Your task to perform on an android device: Open eBay Image 0: 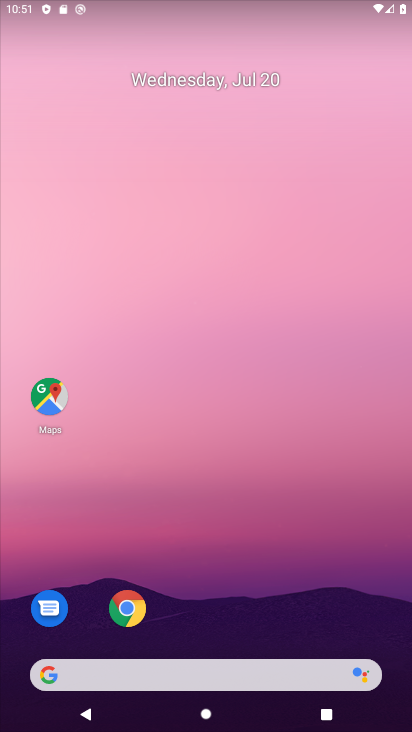
Step 0: drag from (375, 624) to (245, 78)
Your task to perform on an android device: Open eBay Image 1: 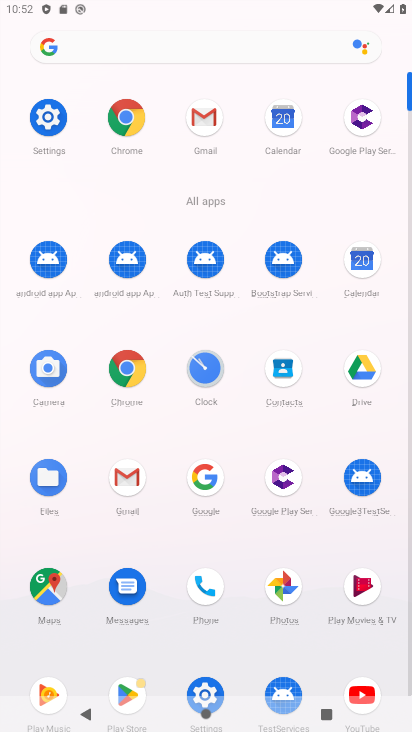
Step 1: click (201, 489)
Your task to perform on an android device: Open eBay Image 2: 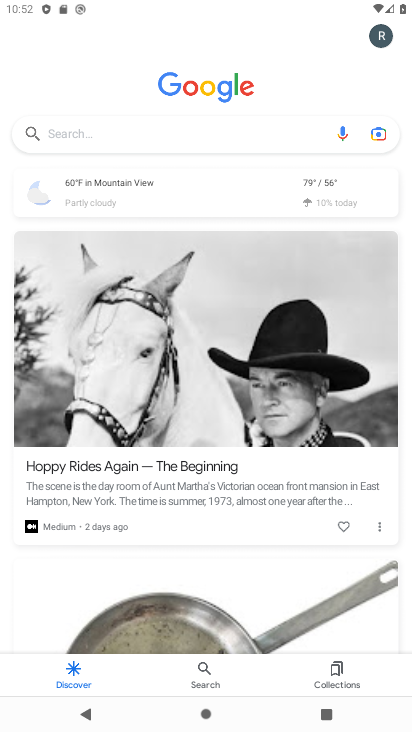
Step 2: click (93, 130)
Your task to perform on an android device: Open eBay Image 3: 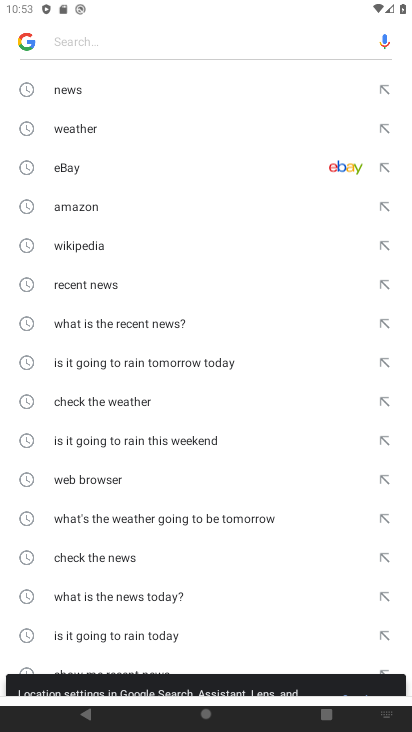
Step 3: click (84, 160)
Your task to perform on an android device: Open eBay Image 4: 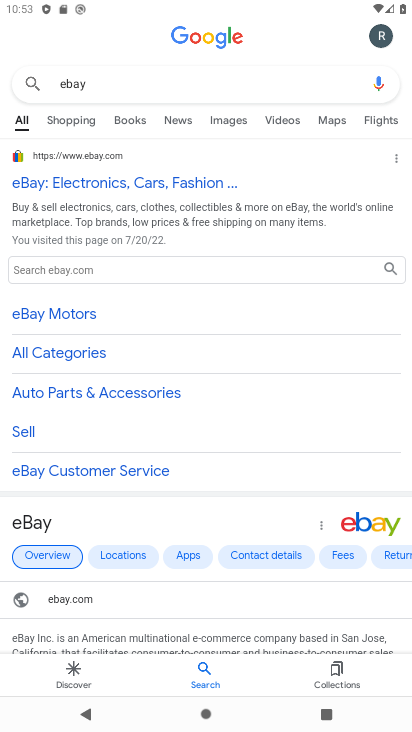
Step 4: task complete